Your task to perform on an android device: open app "Booking.com: Hotels and more" (install if not already installed) and go to login screen Image 0: 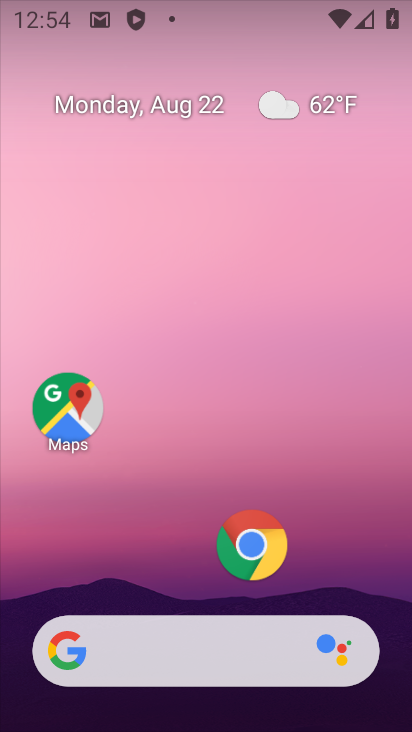
Step 0: drag from (128, 512) to (241, 70)
Your task to perform on an android device: open app "Booking.com: Hotels and more" (install if not already installed) and go to login screen Image 1: 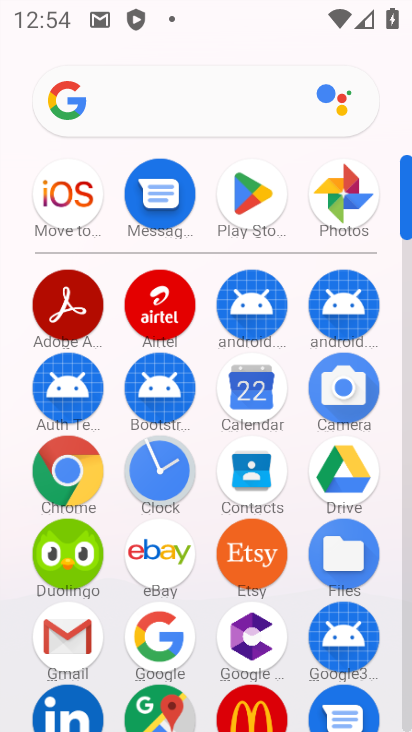
Step 1: click (243, 196)
Your task to perform on an android device: open app "Booking.com: Hotels and more" (install if not already installed) and go to login screen Image 2: 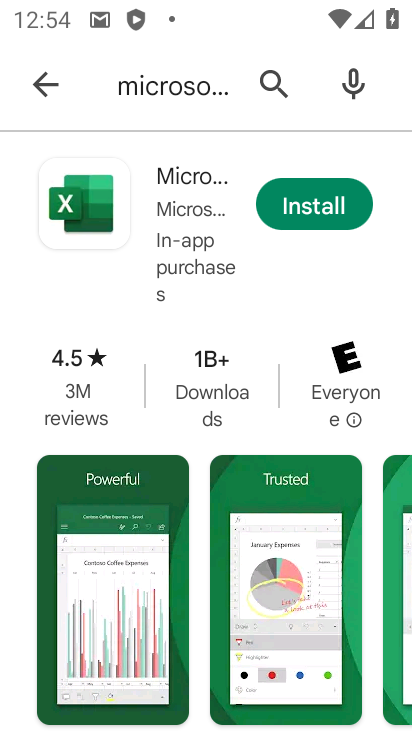
Step 2: click (265, 82)
Your task to perform on an android device: open app "Booking.com: Hotels and more" (install if not already installed) and go to login screen Image 3: 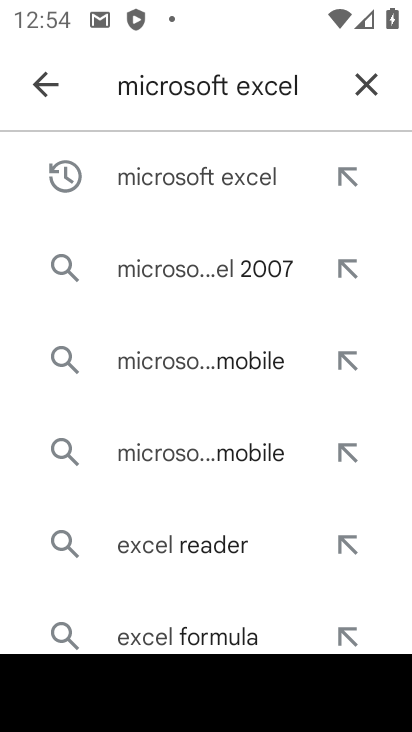
Step 3: click (360, 73)
Your task to perform on an android device: open app "Booking.com: Hotels and more" (install if not already installed) and go to login screen Image 4: 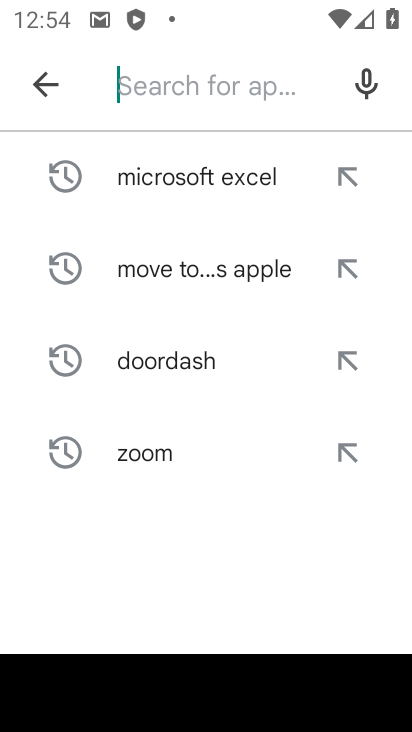
Step 4: click (177, 93)
Your task to perform on an android device: open app "Booking.com: Hotels and more" (install if not already installed) and go to login screen Image 5: 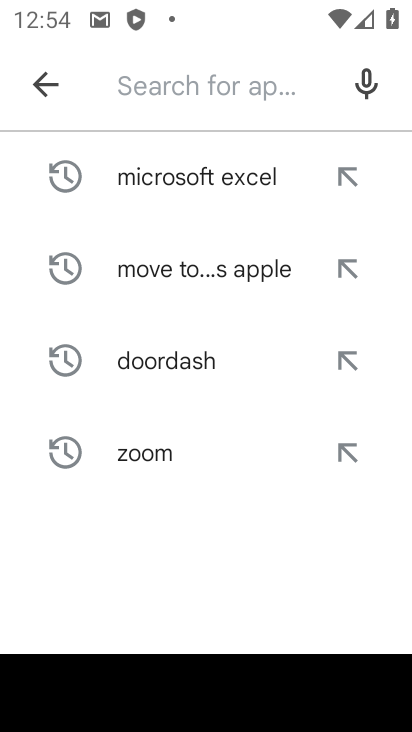
Step 5: click (143, 102)
Your task to perform on an android device: open app "Booking.com: Hotels and more" (install if not already installed) and go to login screen Image 6: 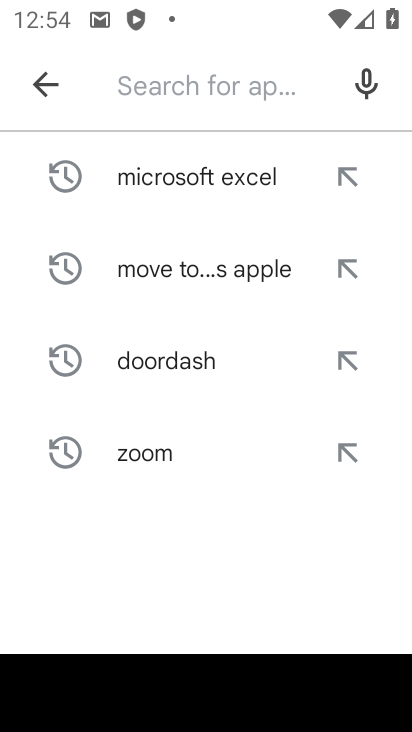
Step 6: type "Booking.com"
Your task to perform on an android device: open app "Booking.com: Hotels and more" (install if not already installed) and go to login screen Image 7: 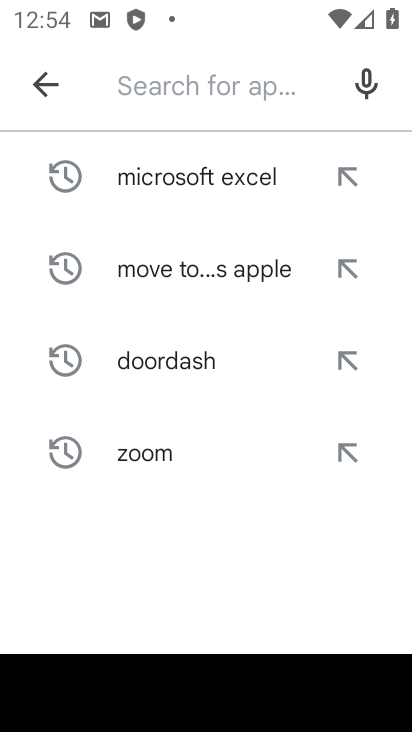
Step 7: click (187, 590)
Your task to perform on an android device: open app "Booking.com: Hotels and more" (install if not already installed) and go to login screen Image 8: 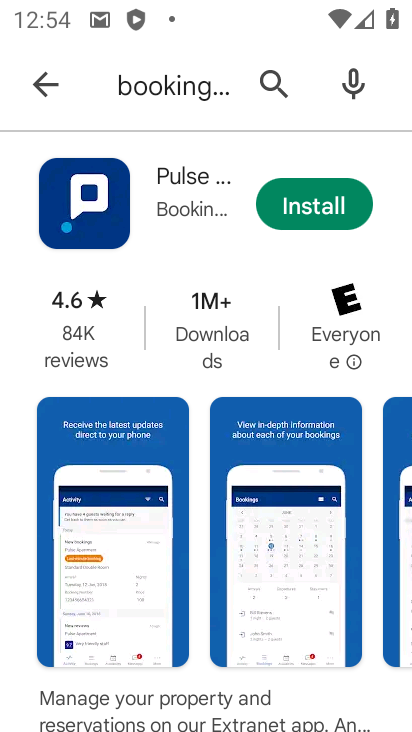
Step 8: drag from (159, 570) to (217, 568)
Your task to perform on an android device: open app "Booking.com: Hotels and more" (install if not already installed) and go to login screen Image 9: 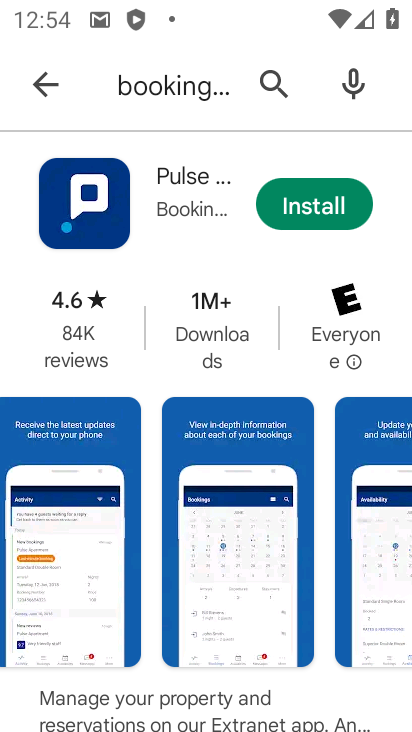
Step 9: drag from (165, 586) to (244, 117)
Your task to perform on an android device: open app "Booking.com: Hotels and more" (install if not already installed) and go to login screen Image 10: 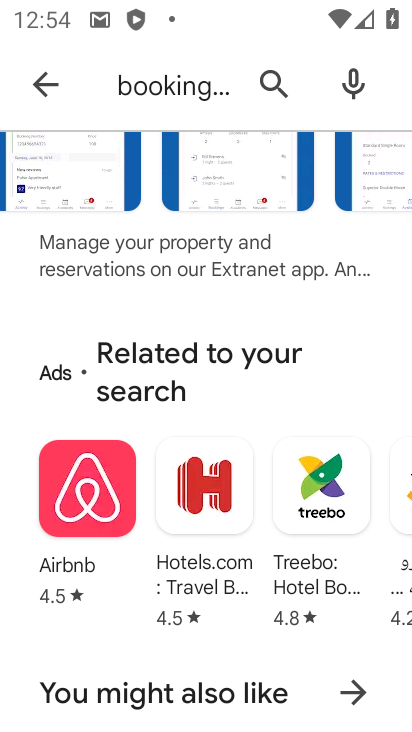
Step 10: drag from (143, 669) to (240, 178)
Your task to perform on an android device: open app "Booking.com: Hotels and more" (install if not already installed) and go to login screen Image 11: 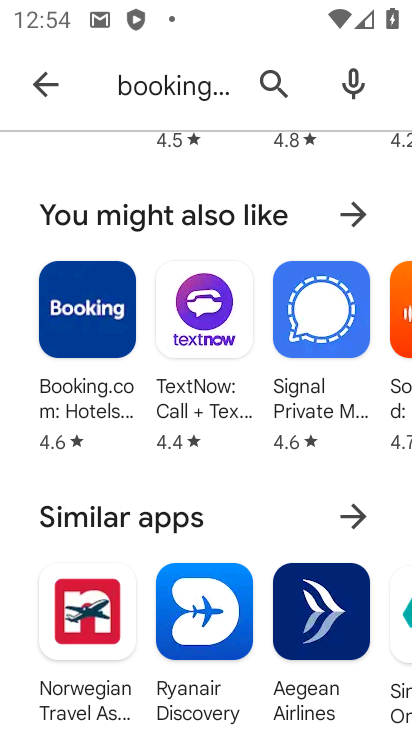
Step 11: click (83, 315)
Your task to perform on an android device: open app "Booking.com: Hotels and more" (install if not already installed) and go to login screen Image 12: 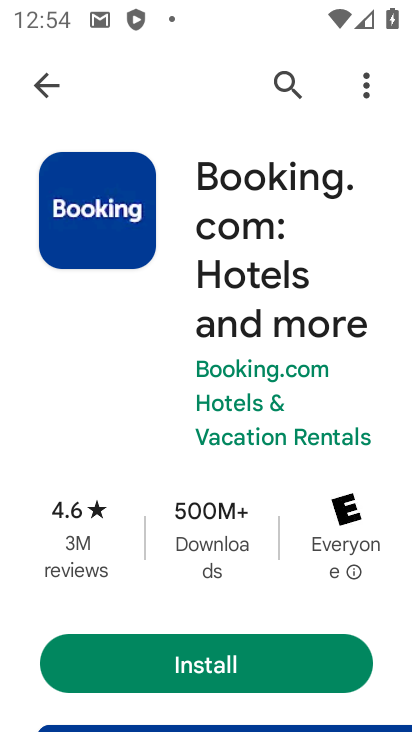
Step 12: click (207, 664)
Your task to perform on an android device: open app "Booking.com: Hotels and more" (install if not already installed) and go to login screen Image 13: 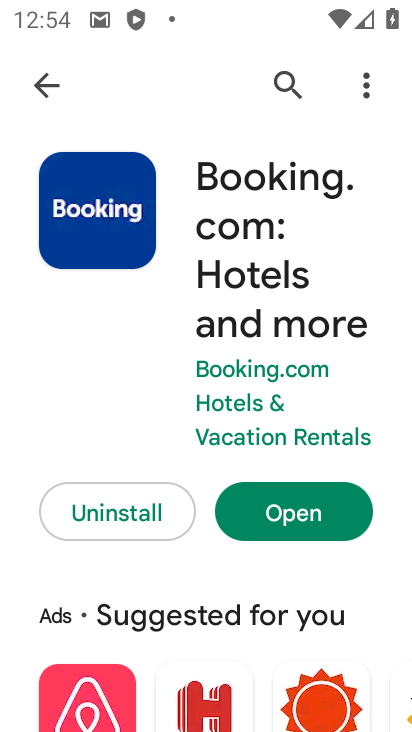
Step 13: click (281, 505)
Your task to perform on an android device: open app "Booking.com: Hotels and more" (install if not already installed) and go to login screen Image 14: 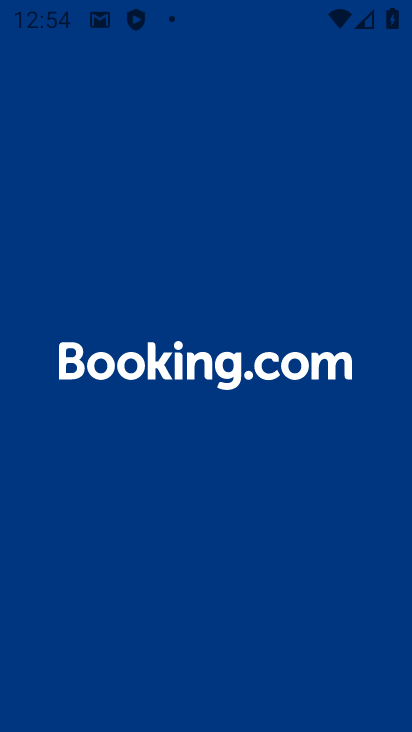
Step 14: task complete